Your task to perform on an android device: open sync settings in chrome Image 0: 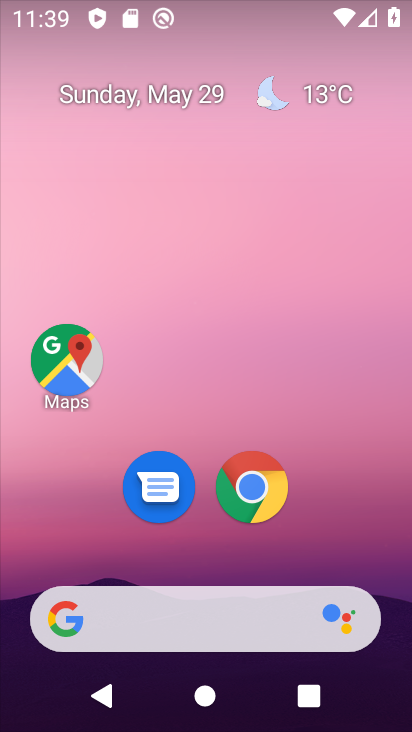
Step 0: click (266, 498)
Your task to perform on an android device: open sync settings in chrome Image 1: 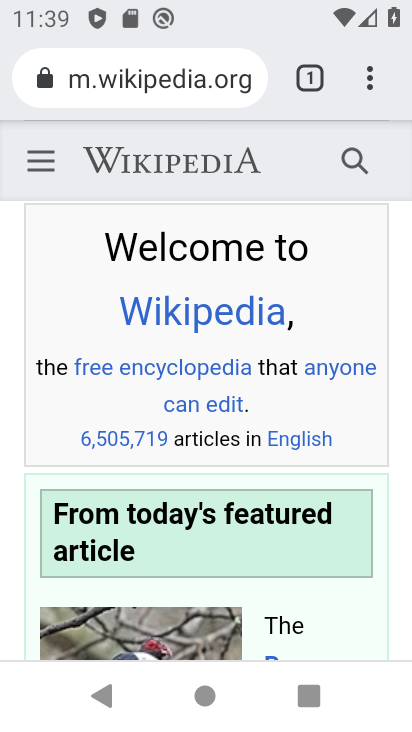
Step 1: click (359, 65)
Your task to perform on an android device: open sync settings in chrome Image 2: 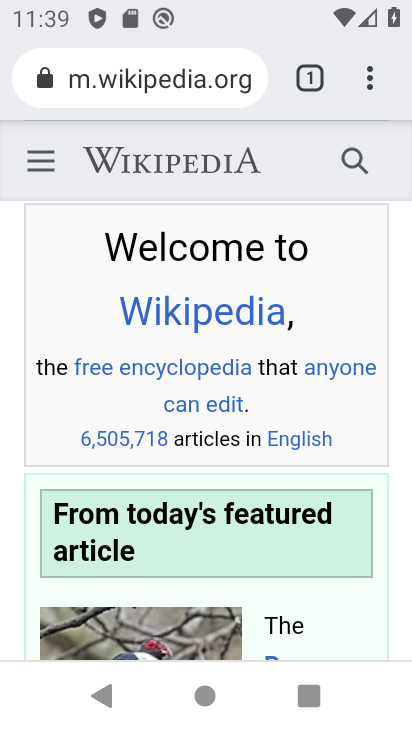
Step 2: click (371, 73)
Your task to perform on an android device: open sync settings in chrome Image 3: 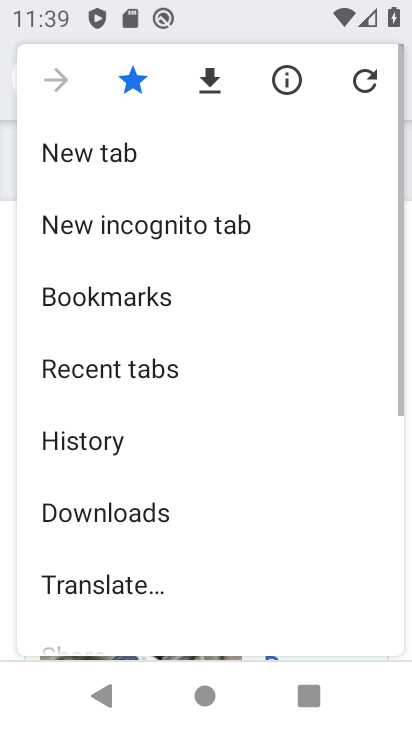
Step 3: drag from (232, 583) to (212, 213)
Your task to perform on an android device: open sync settings in chrome Image 4: 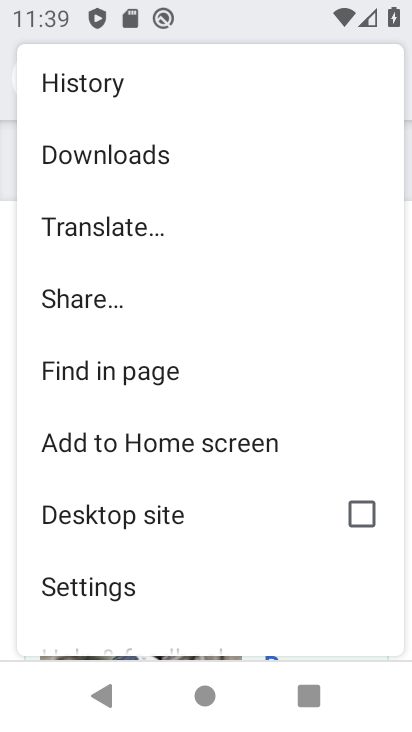
Step 4: click (115, 572)
Your task to perform on an android device: open sync settings in chrome Image 5: 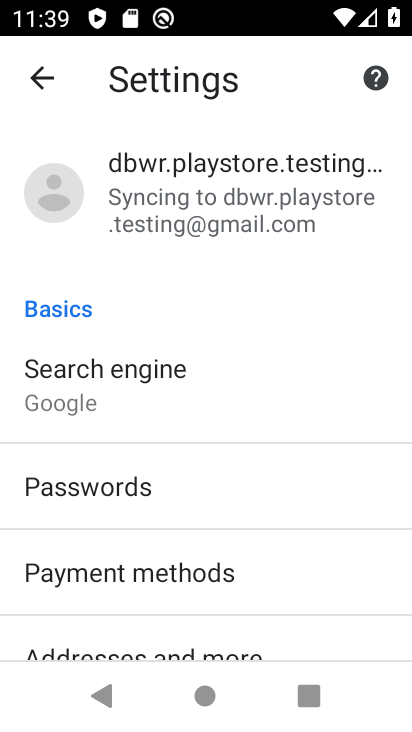
Step 5: drag from (194, 571) to (176, 457)
Your task to perform on an android device: open sync settings in chrome Image 6: 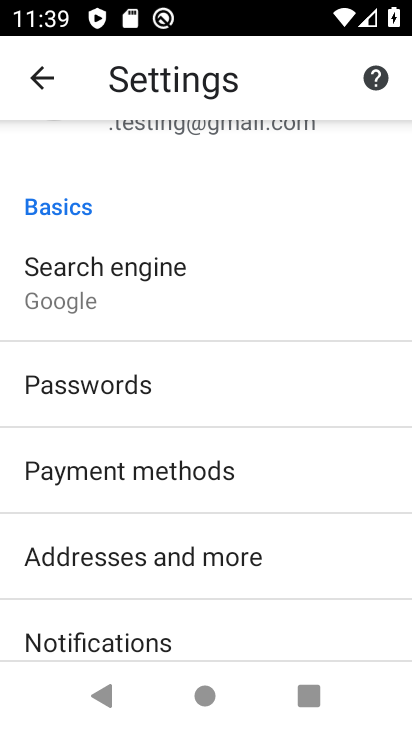
Step 6: click (151, 134)
Your task to perform on an android device: open sync settings in chrome Image 7: 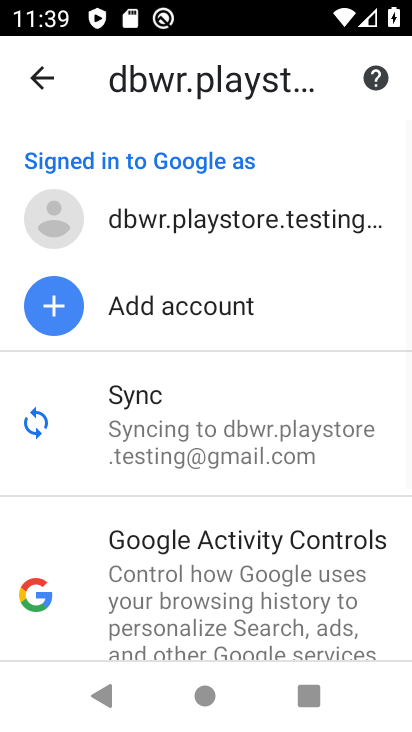
Step 7: click (167, 402)
Your task to perform on an android device: open sync settings in chrome Image 8: 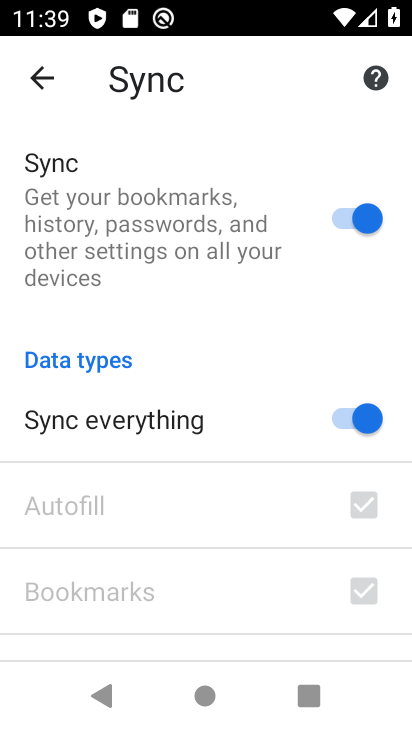
Step 8: task complete